Your task to perform on an android device: Set an alarmfor 5pm Image 0: 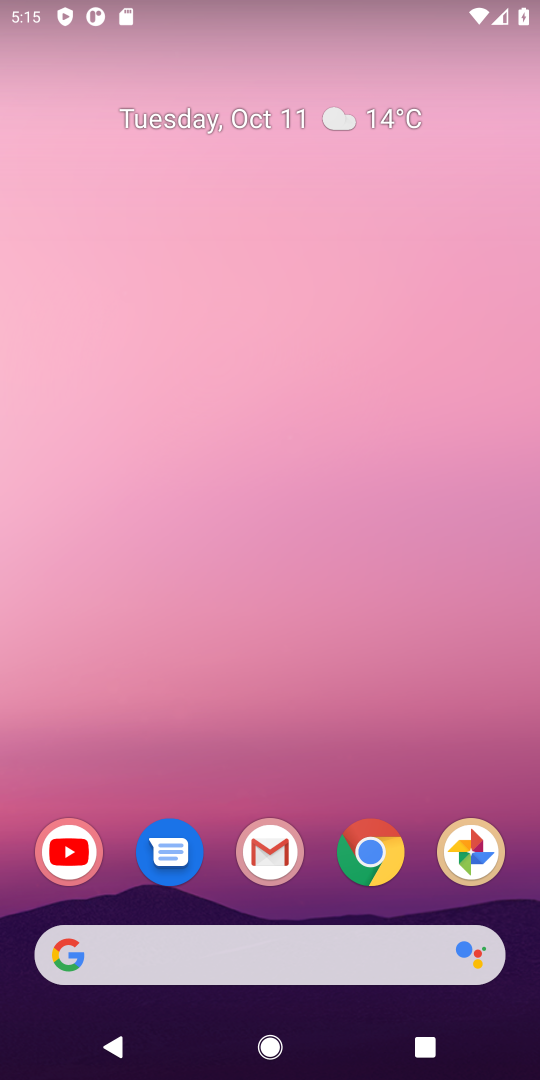
Step 0: click (384, 853)
Your task to perform on an android device: Set an alarmfor 5pm Image 1: 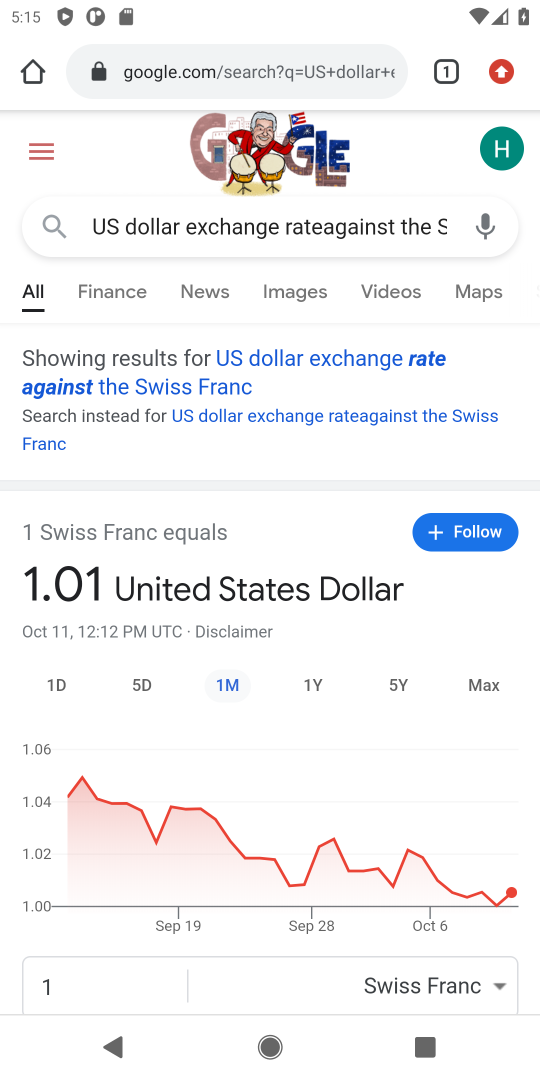
Step 1: press home button
Your task to perform on an android device: Set an alarmfor 5pm Image 2: 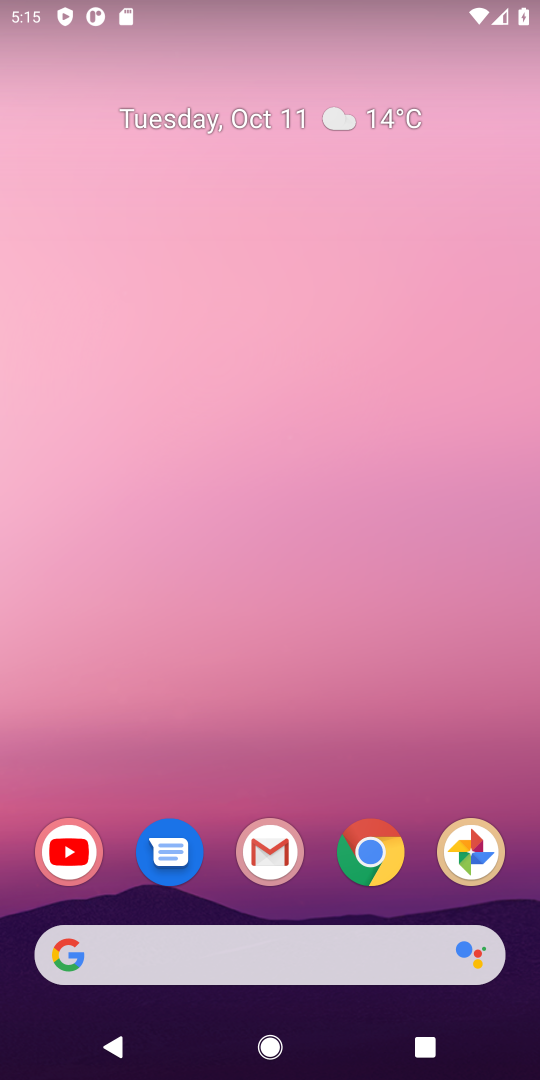
Step 2: drag from (398, 766) to (338, 254)
Your task to perform on an android device: Set an alarmfor 5pm Image 3: 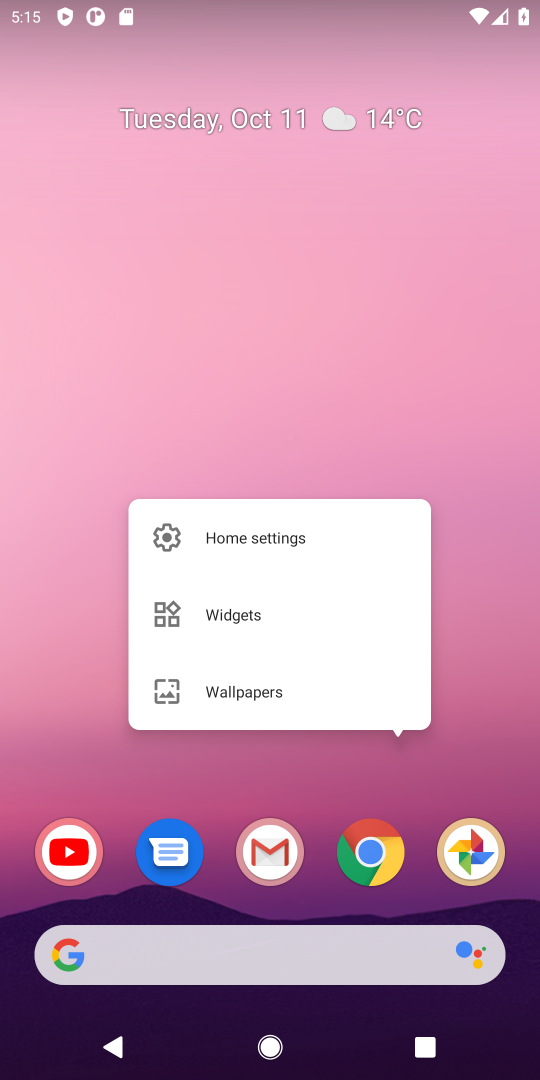
Step 3: drag from (472, 734) to (412, 245)
Your task to perform on an android device: Set an alarmfor 5pm Image 4: 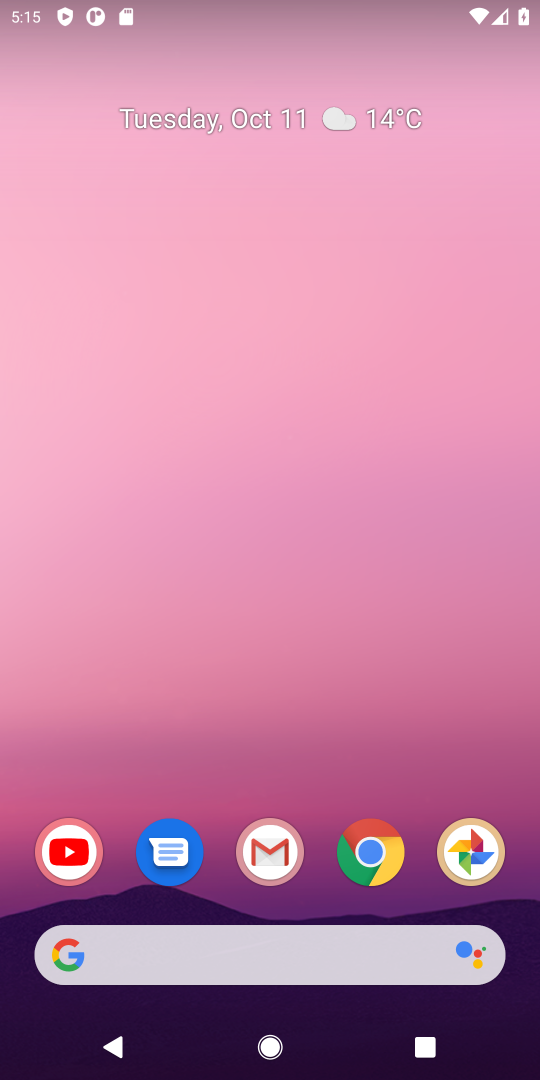
Step 4: drag from (368, 733) to (313, 203)
Your task to perform on an android device: Set an alarmfor 5pm Image 5: 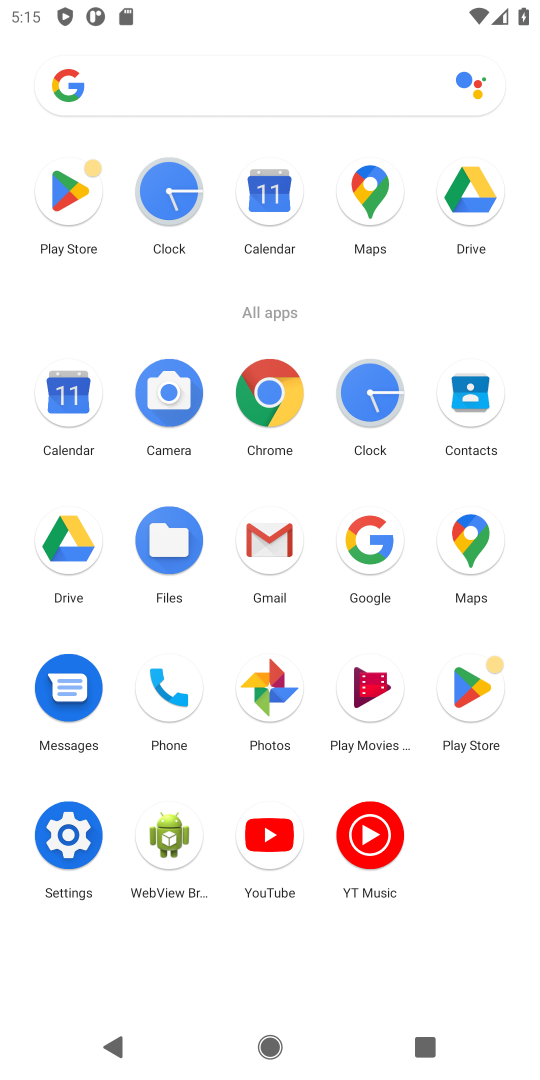
Step 5: click (379, 392)
Your task to perform on an android device: Set an alarmfor 5pm Image 6: 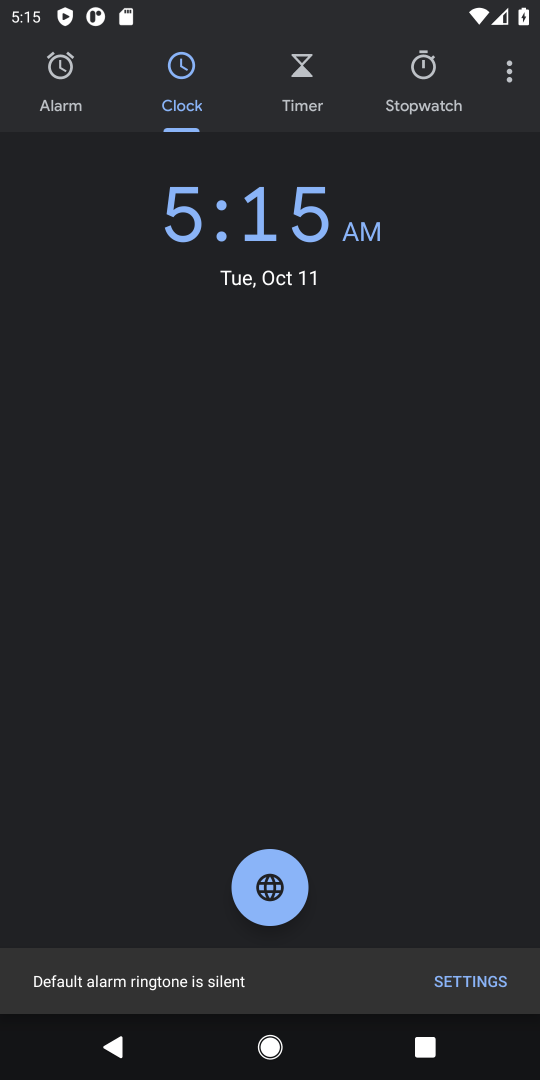
Step 6: click (74, 69)
Your task to perform on an android device: Set an alarmfor 5pm Image 7: 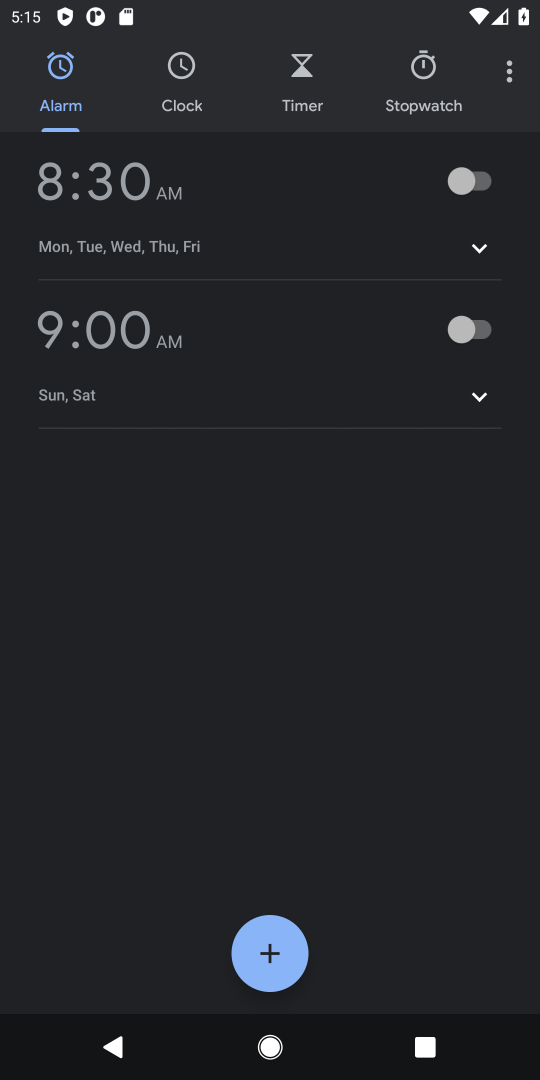
Step 7: click (284, 932)
Your task to perform on an android device: Set an alarmfor 5pm Image 8: 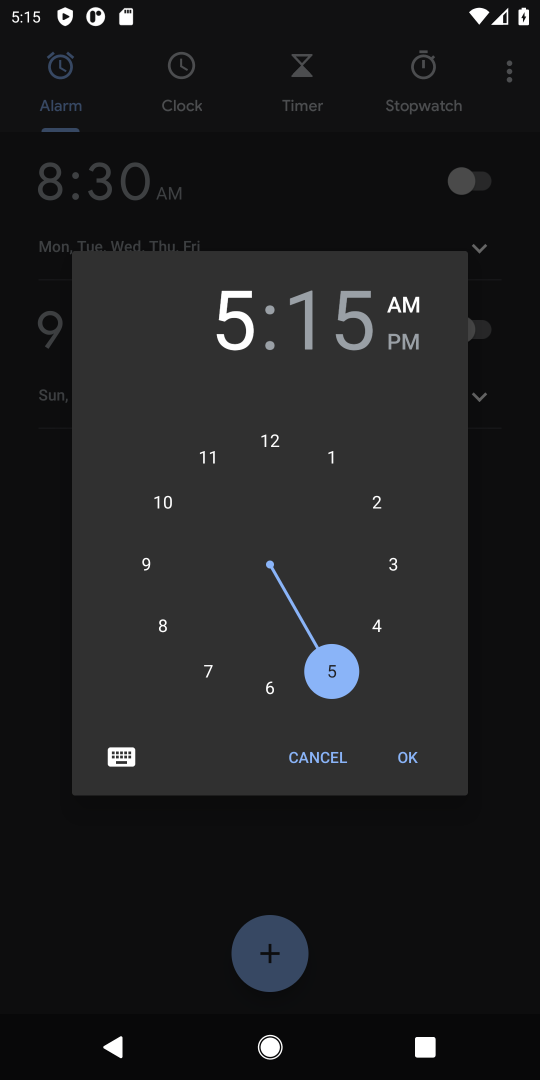
Step 8: click (330, 679)
Your task to perform on an android device: Set an alarmfor 5pm Image 9: 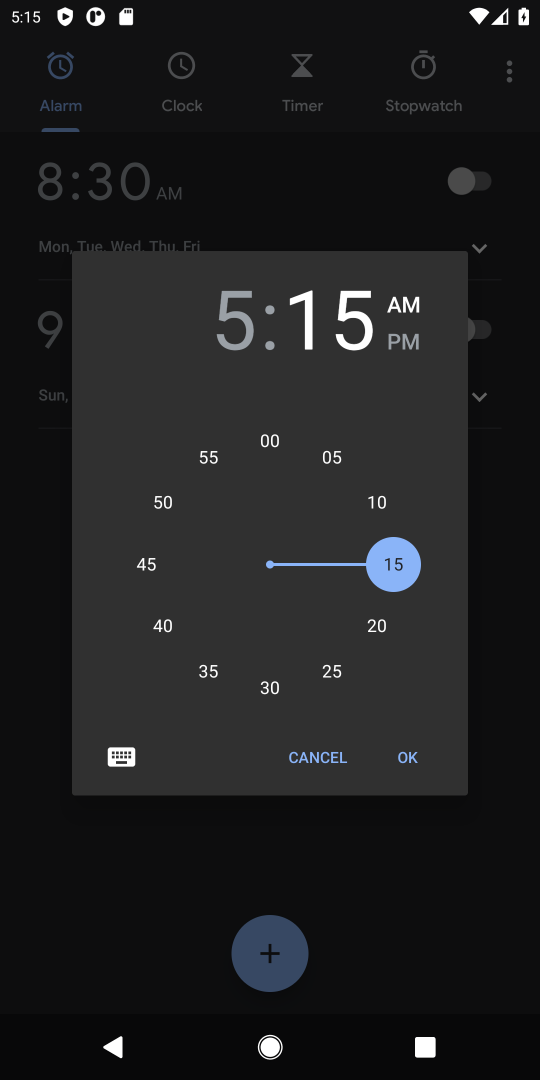
Step 9: click (270, 443)
Your task to perform on an android device: Set an alarmfor 5pm Image 10: 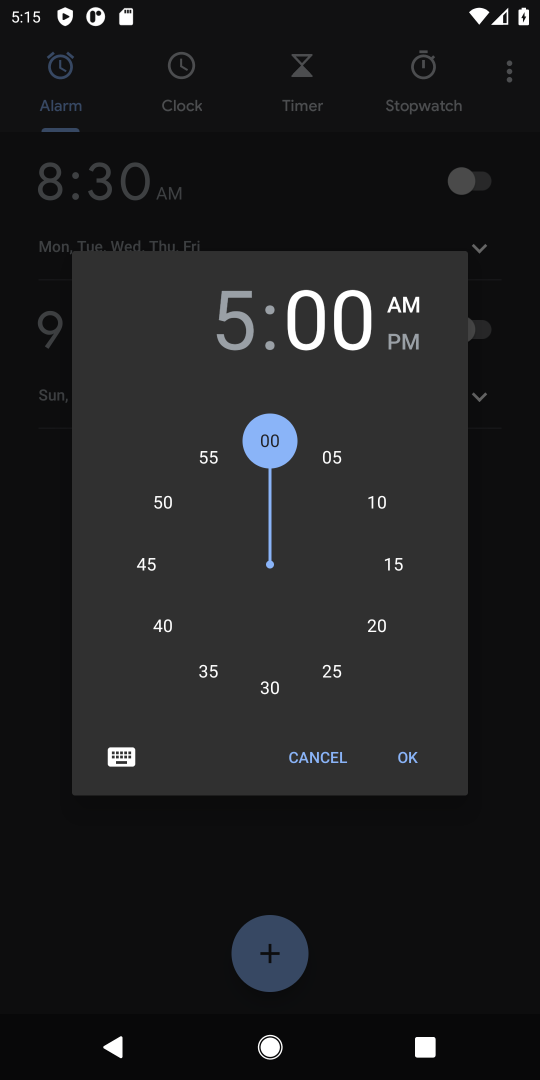
Step 10: click (418, 337)
Your task to perform on an android device: Set an alarmfor 5pm Image 11: 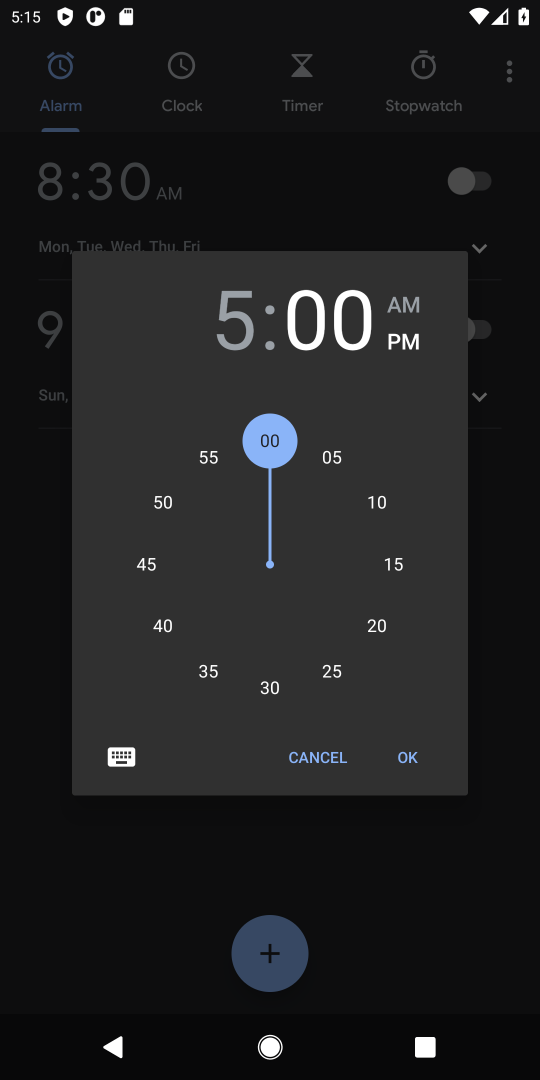
Step 11: click (419, 769)
Your task to perform on an android device: Set an alarmfor 5pm Image 12: 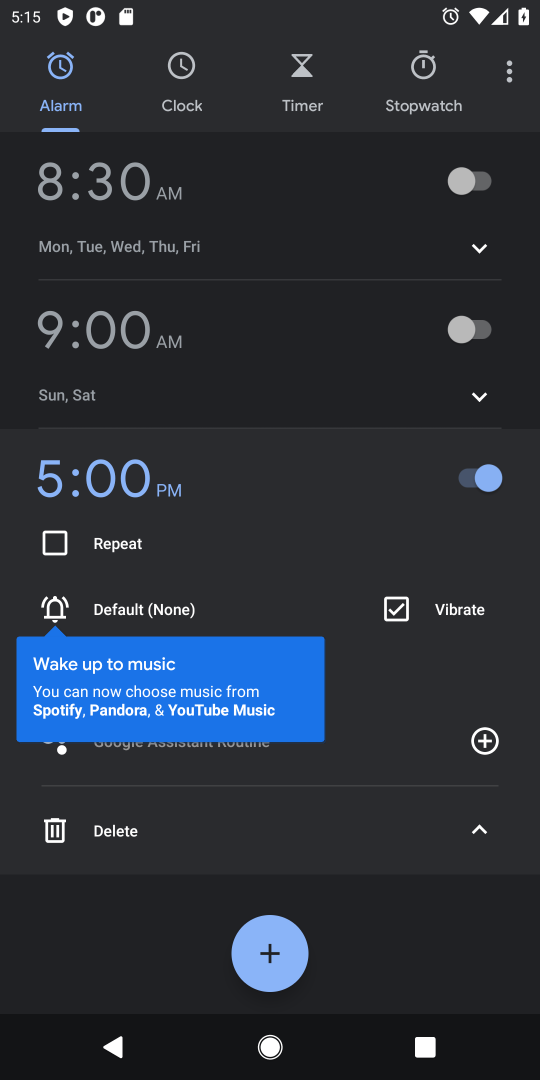
Step 12: task complete